Your task to perform on an android device: turn off notifications in google photos Image 0: 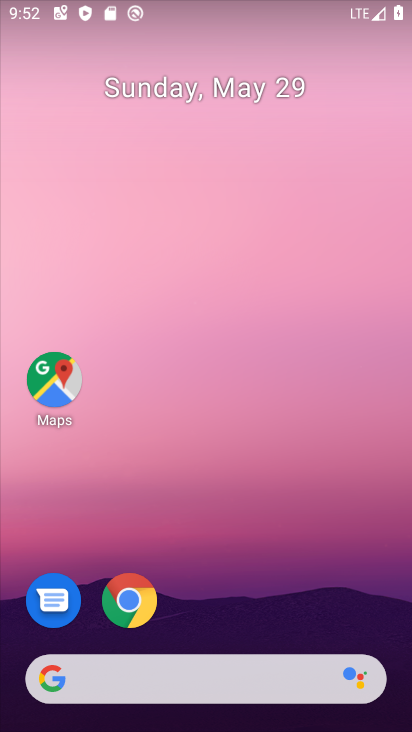
Step 0: drag from (254, 619) to (252, 144)
Your task to perform on an android device: turn off notifications in google photos Image 1: 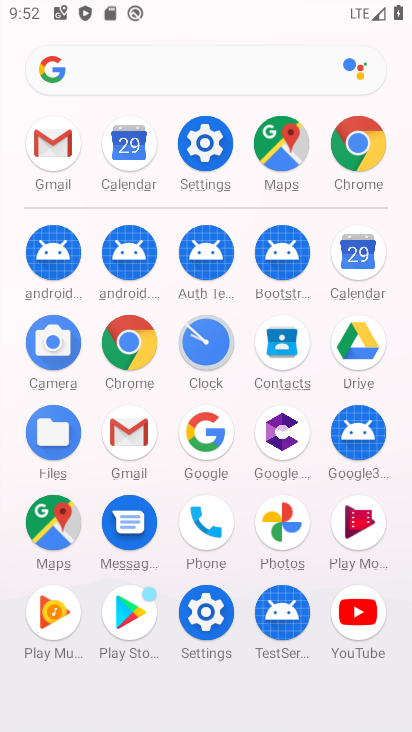
Step 1: click (278, 519)
Your task to perform on an android device: turn off notifications in google photos Image 2: 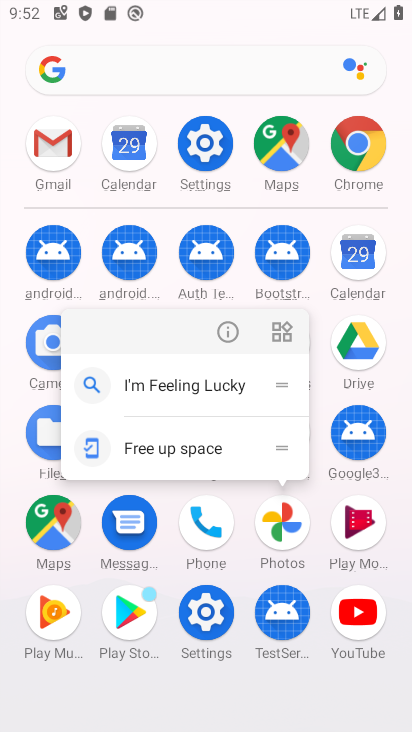
Step 2: click (226, 323)
Your task to perform on an android device: turn off notifications in google photos Image 3: 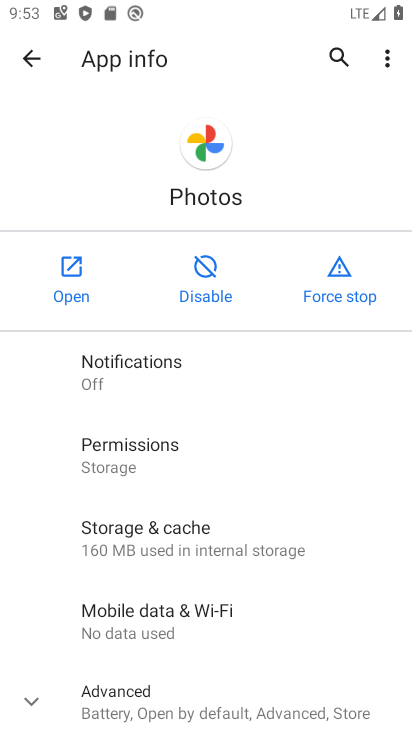
Step 3: click (171, 368)
Your task to perform on an android device: turn off notifications in google photos Image 4: 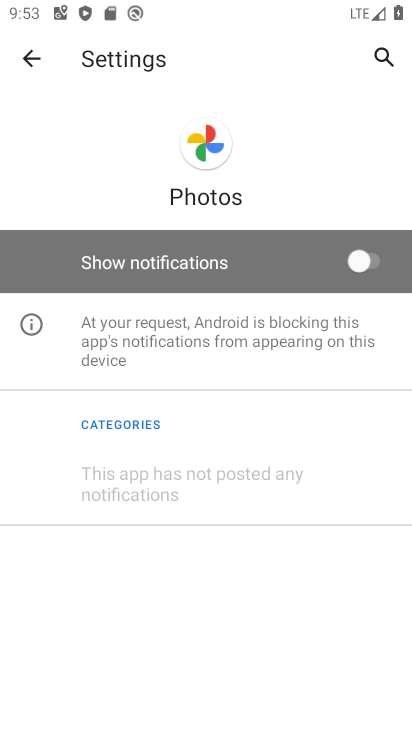
Step 4: task complete